Your task to perform on an android device: Open battery settings Image 0: 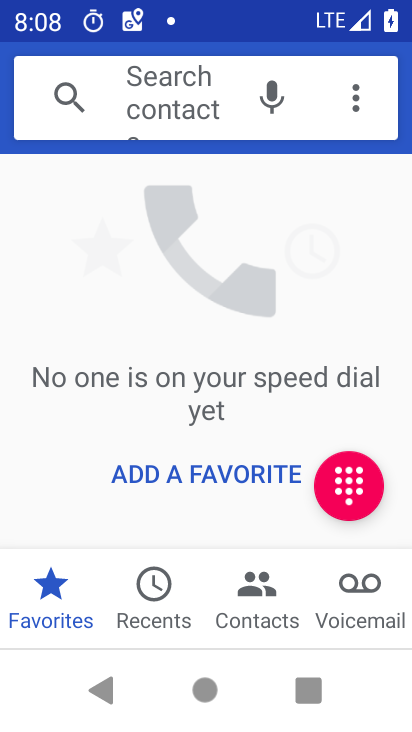
Step 0: press home button
Your task to perform on an android device: Open battery settings Image 1: 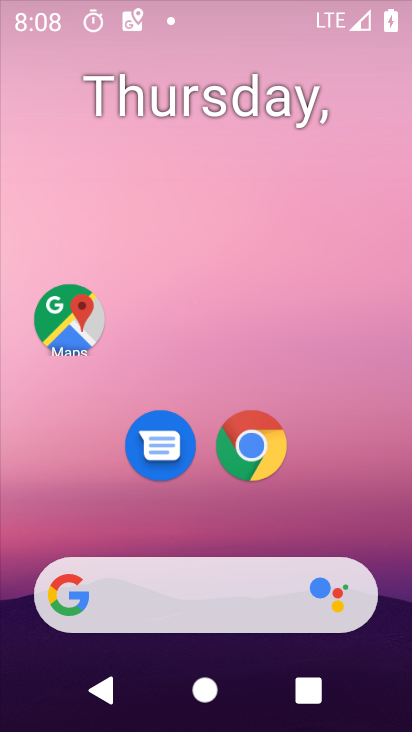
Step 1: drag from (208, 542) to (230, 112)
Your task to perform on an android device: Open battery settings Image 2: 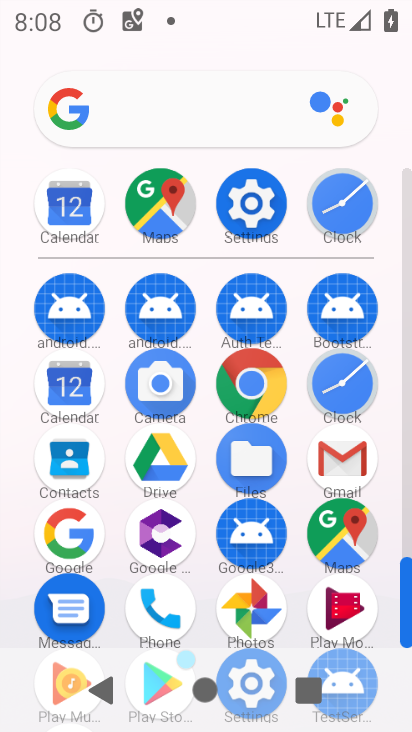
Step 2: click (259, 193)
Your task to perform on an android device: Open battery settings Image 3: 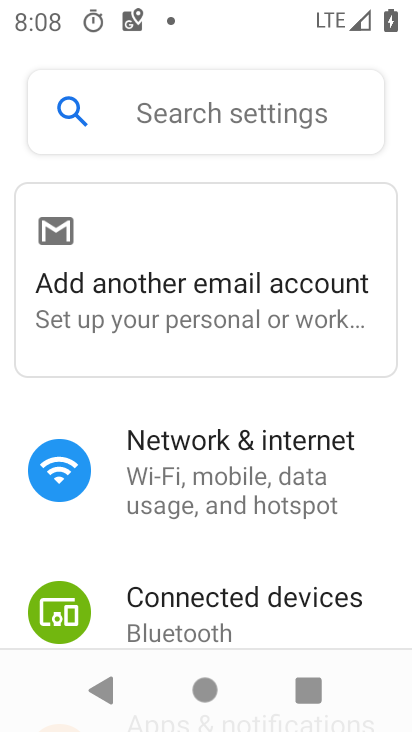
Step 3: drag from (195, 562) to (211, 172)
Your task to perform on an android device: Open battery settings Image 4: 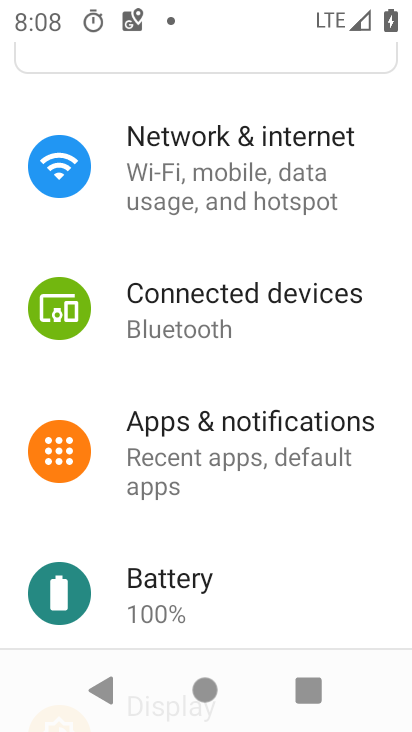
Step 4: click (210, 587)
Your task to perform on an android device: Open battery settings Image 5: 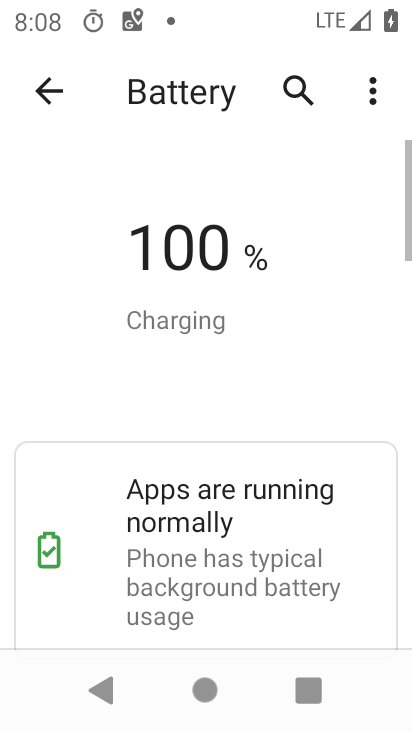
Step 5: task complete